Your task to perform on an android device: toggle airplane mode Image 0: 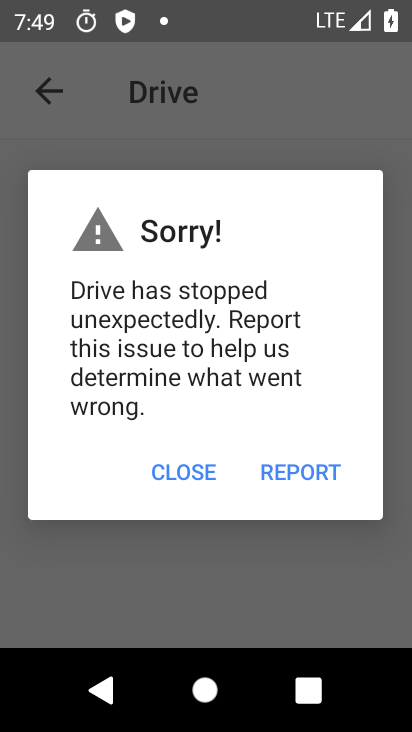
Step 0: press home button
Your task to perform on an android device: toggle airplane mode Image 1: 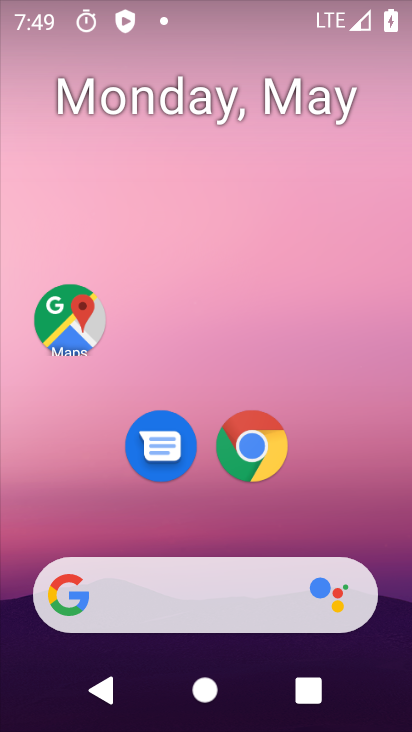
Step 1: drag from (352, 545) to (308, 9)
Your task to perform on an android device: toggle airplane mode Image 2: 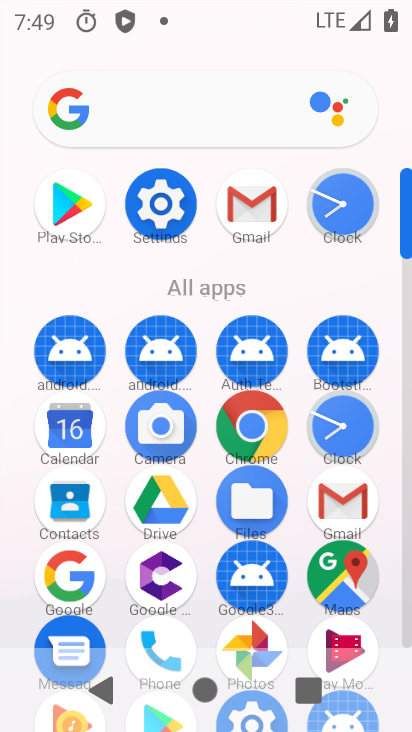
Step 2: click (165, 198)
Your task to perform on an android device: toggle airplane mode Image 3: 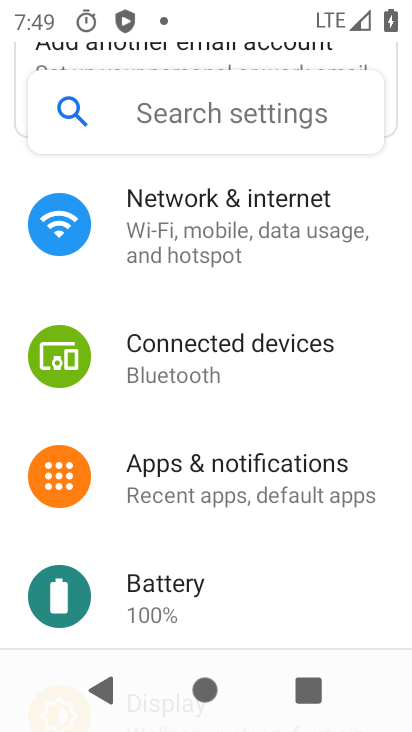
Step 3: click (166, 197)
Your task to perform on an android device: toggle airplane mode Image 4: 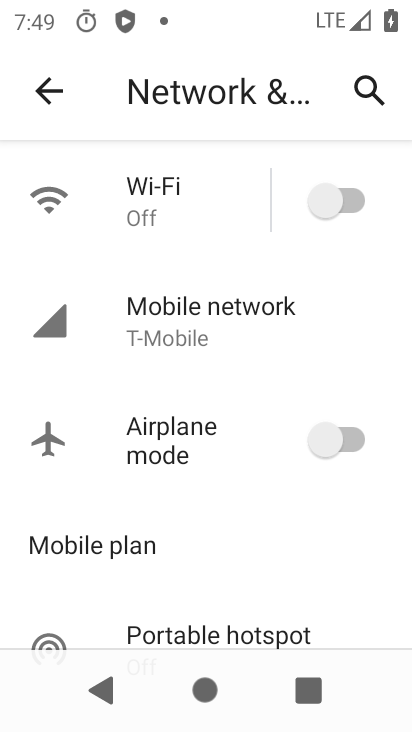
Step 4: click (321, 448)
Your task to perform on an android device: toggle airplane mode Image 5: 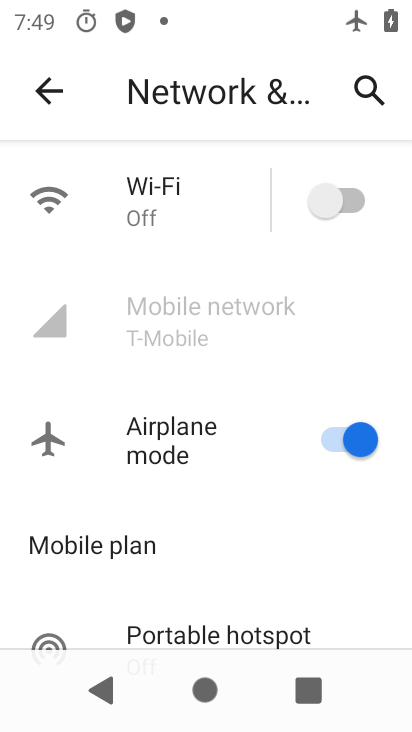
Step 5: task complete